Your task to perform on an android device: turn smart compose on in the gmail app Image 0: 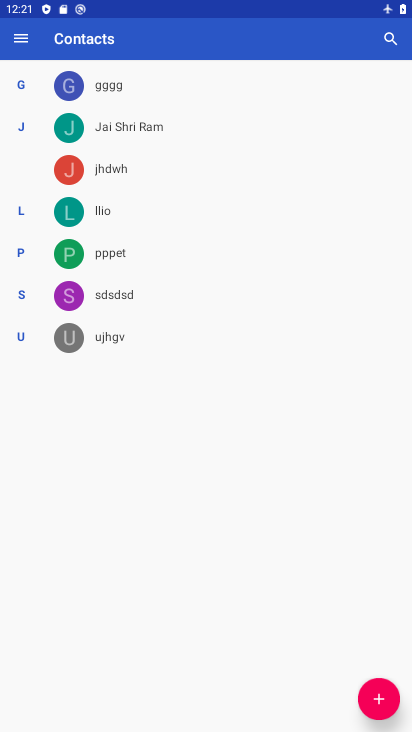
Step 0: press home button
Your task to perform on an android device: turn smart compose on in the gmail app Image 1: 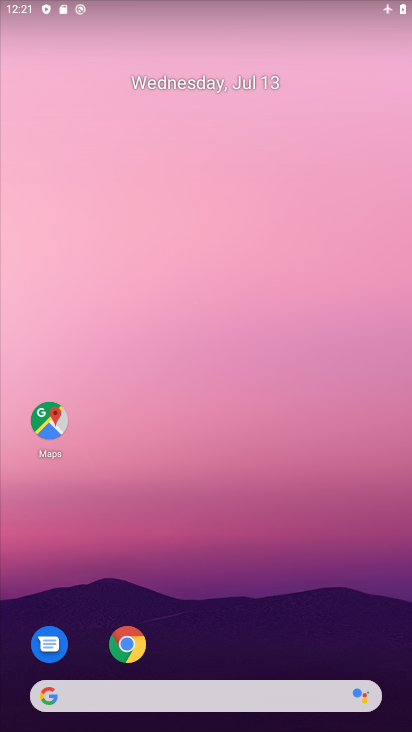
Step 1: drag from (282, 633) to (239, 185)
Your task to perform on an android device: turn smart compose on in the gmail app Image 2: 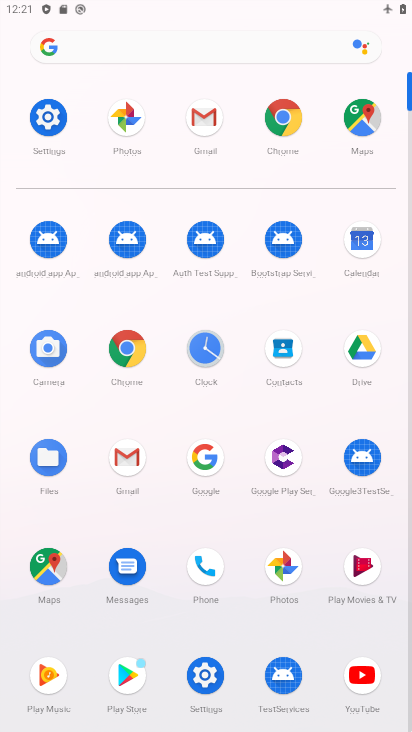
Step 2: click (207, 123)
Your task to perform on an android device: turn smart compose on in the gmail app Image 3: 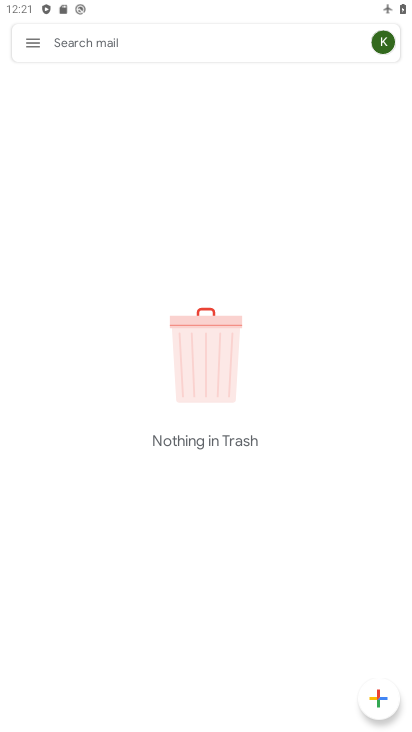
Step 3: click (32, 36)
Your task to perform on an android device: turn smart compose on in the gmail app Image 4: 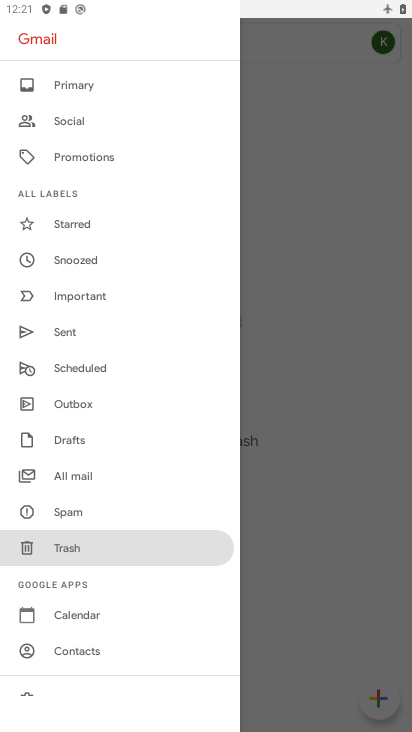
Step 4: drag from (134, 637) to (160, 318)
Your task to perform on an android device: turn smart compose on in the gmail app Image 5: 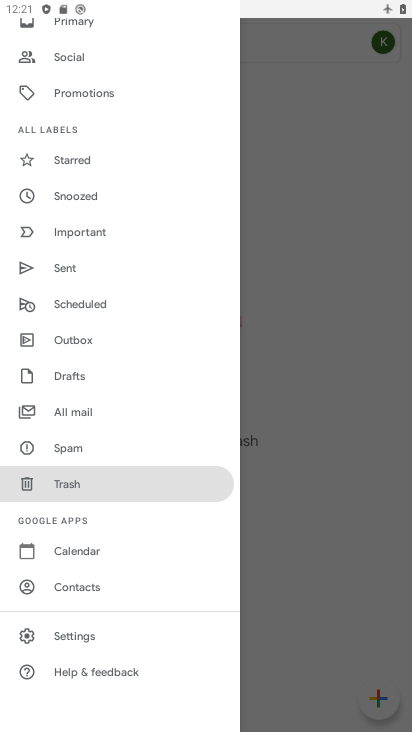
Step 5: click (89, 639)
Your task to perform on an android device: turn smart compose on in the gmail app Image 6: 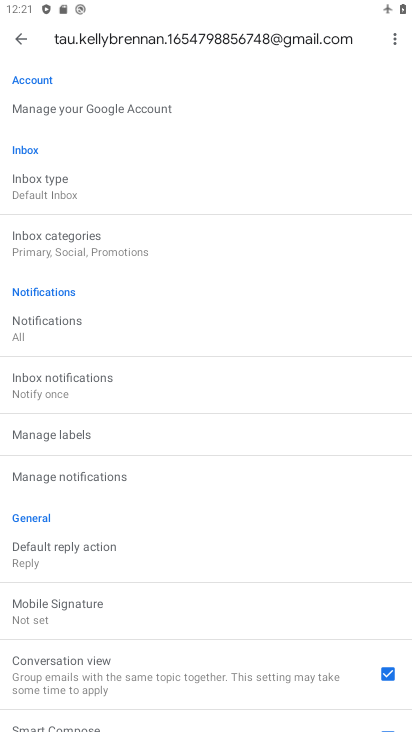
Step 6: task complete